Your task to perform on an android device: turn off data saver in the chrome app Image 0: 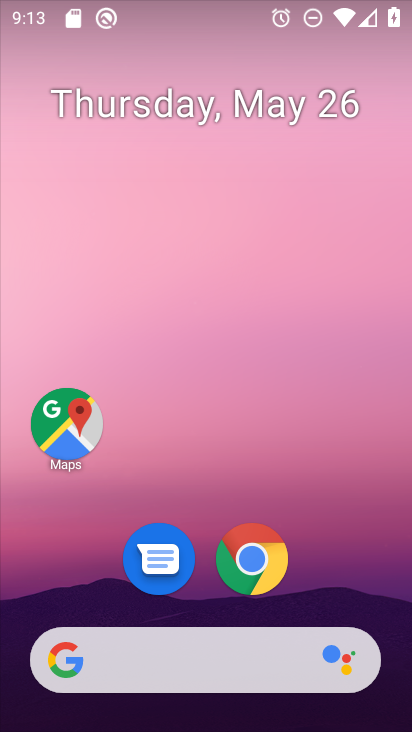
Step 0: click (259, 558)
Your task to perform on an android device: turn off data saver in the chrome app Image 1: 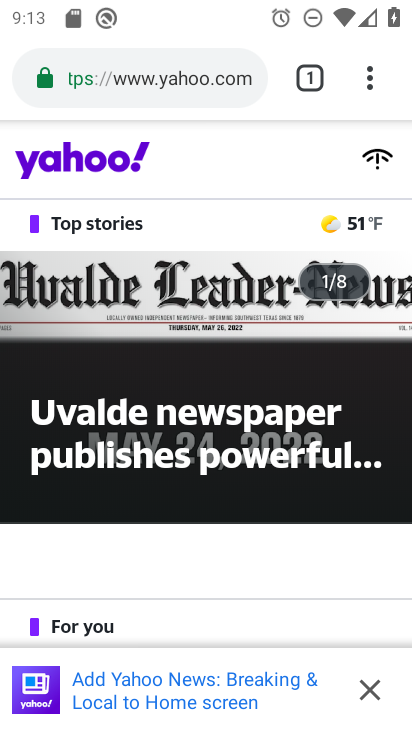
Step 1: click (360, 74)
Your task to perform on an android device: turn off data saver in the chrome app Image 2: 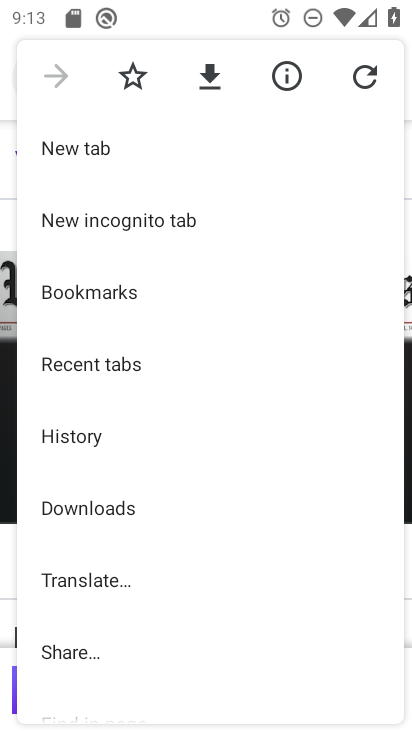
Step 2: drag from (194, 586) to (212, 150)
Your task to perform on an android device: turn off data saver in the chrome app Image 3: 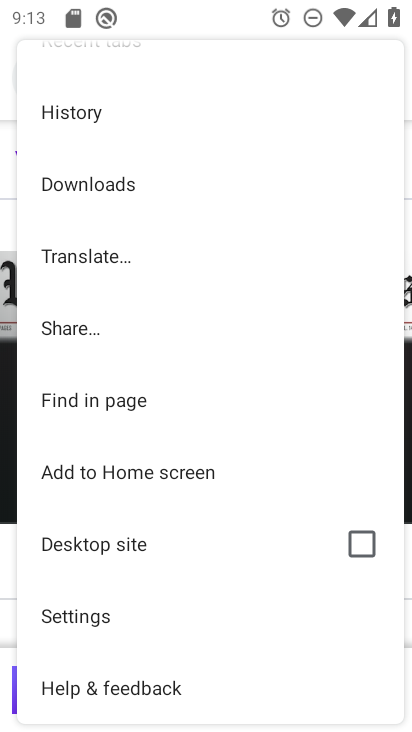
Step 3: click (98, 617)
Your task to perform on an android device: turn off data saver in the chrome app Image 4: 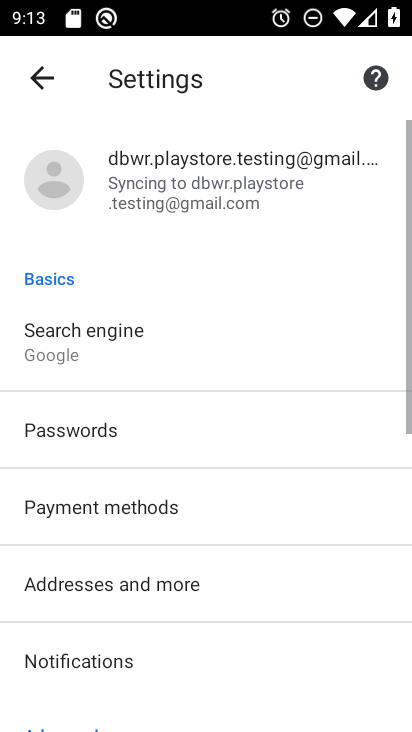
Step 4: drag from (182, 624) to (218, 282)
Your task to perform on an android device: turn off data saver in the chrome app Image 5: 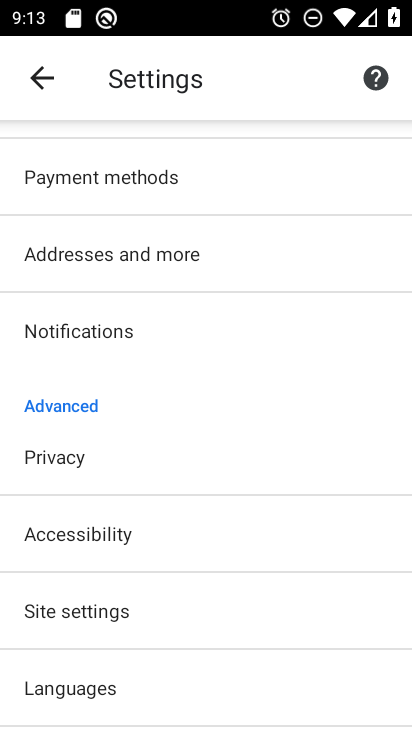
Step 5: drag from (104, 670) to (134, 446)
Your task to perform on an android device: turn off data saver in the chrome app Image 6: 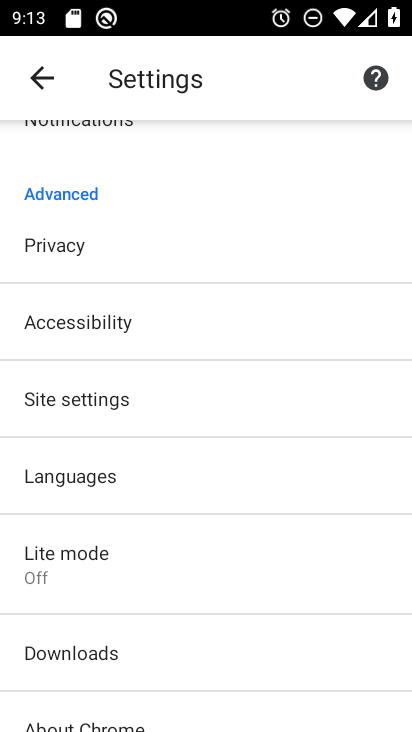
Step 6: click (98, 559)
Your task to perform on an android device: turn off data saver in the chrome app Image 7: 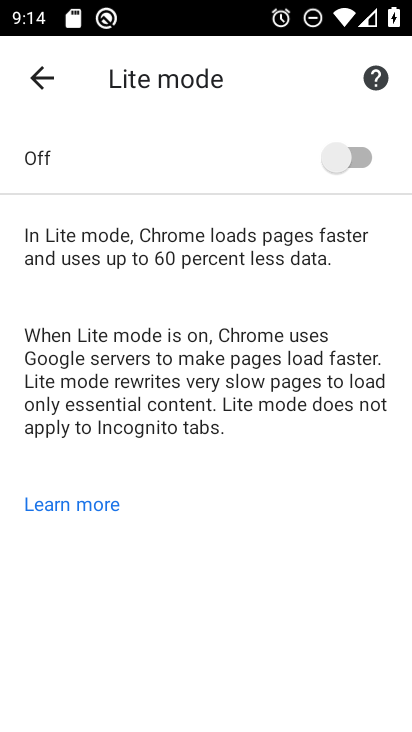
Step 7: task complete